Your task to perform on an android device: Go to settings Image 0: 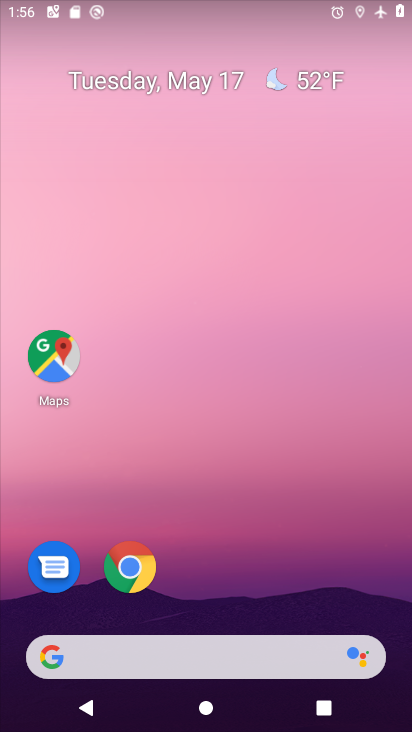
Step 0: click (331, 136)
Your task to perform on an android device: Go to settings Image 1: 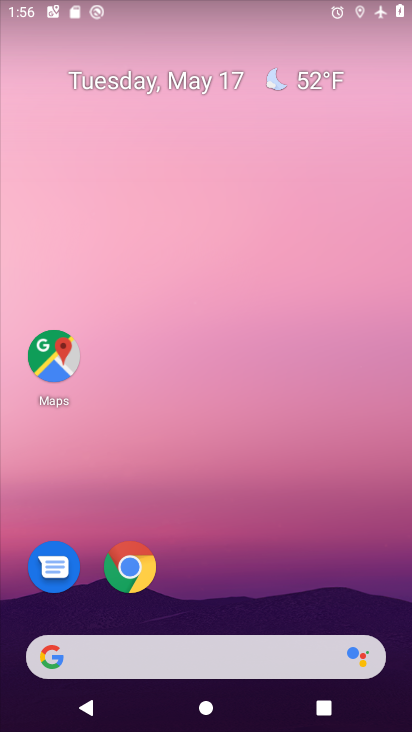
Step 1: drag from (155, 560) to (293, 38)
Your task to perform on an android device: Go to settings Image 2: 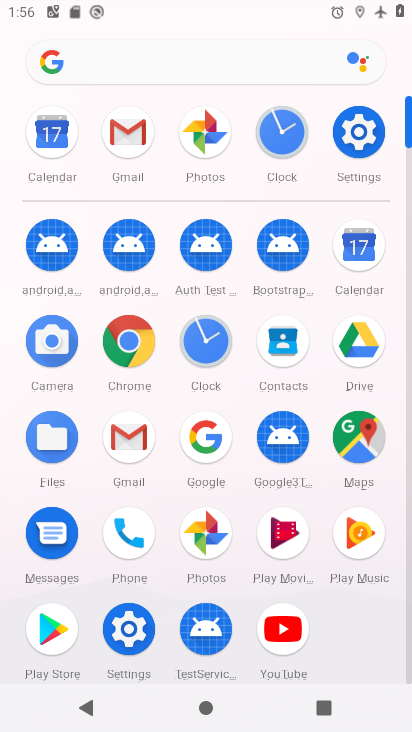
Step 2: click (116, 639)
Your task to perform on an android device: Go to settings Image 3: 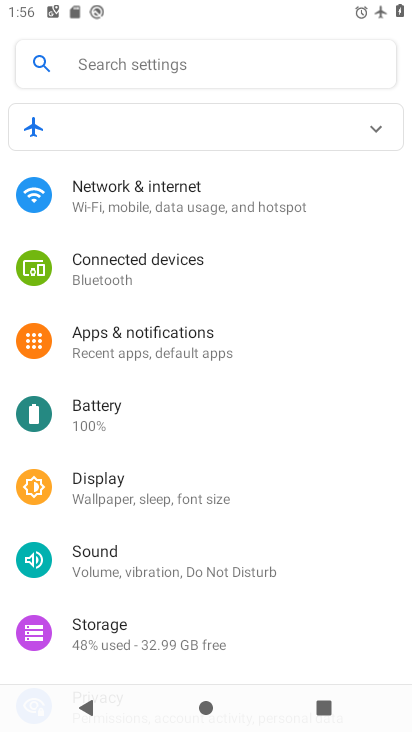
Step 3: task complete